Your task to perform on an android device: Check the news Image 0: 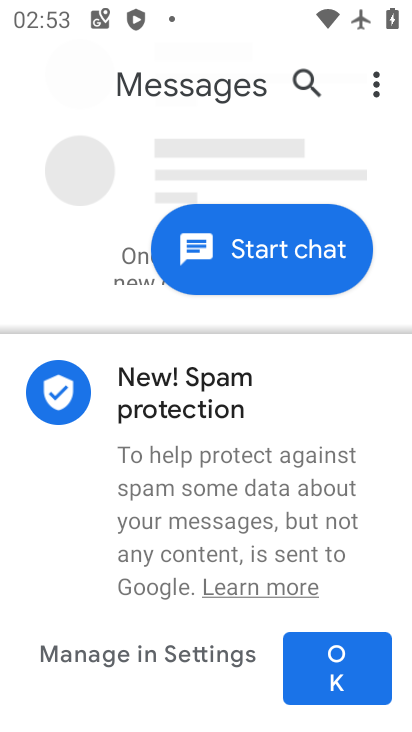
Step 0: press home button
Your task to perform on an android device: Check the news Image 1: 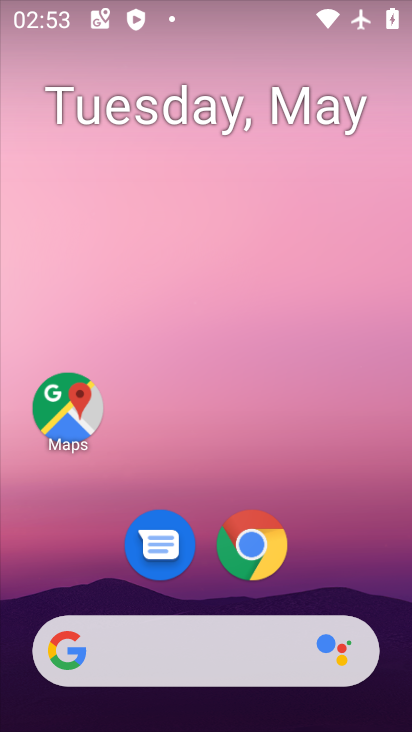
Step 1: task complete